Your task to perform on an android device: move an email to a new category in the gmail app Image 0: 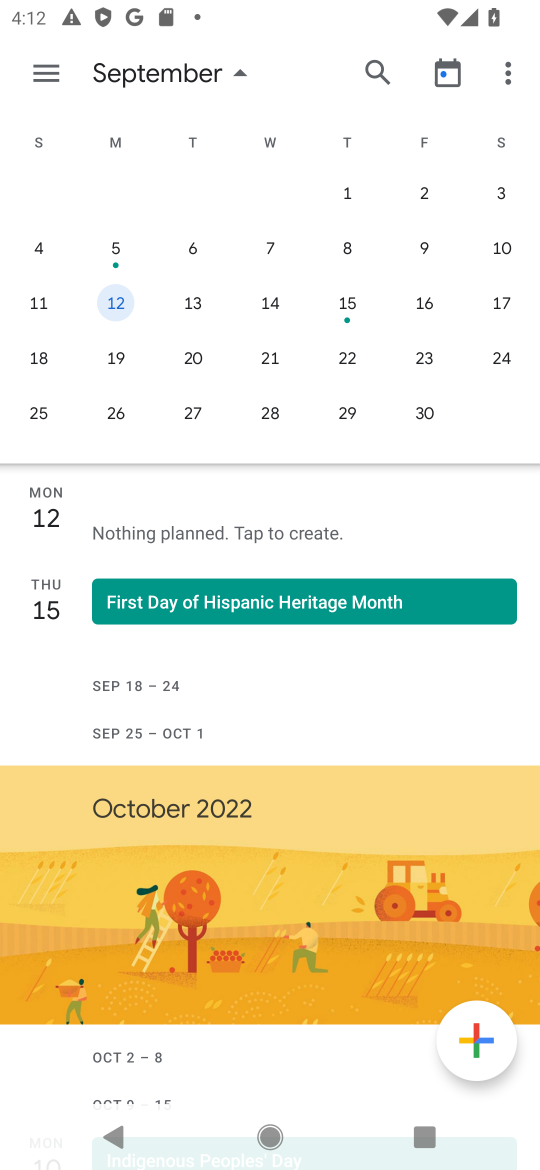
Step 0: press home button
Your task to perform on an android device: move an email to a new category in the gmail app Image 1: 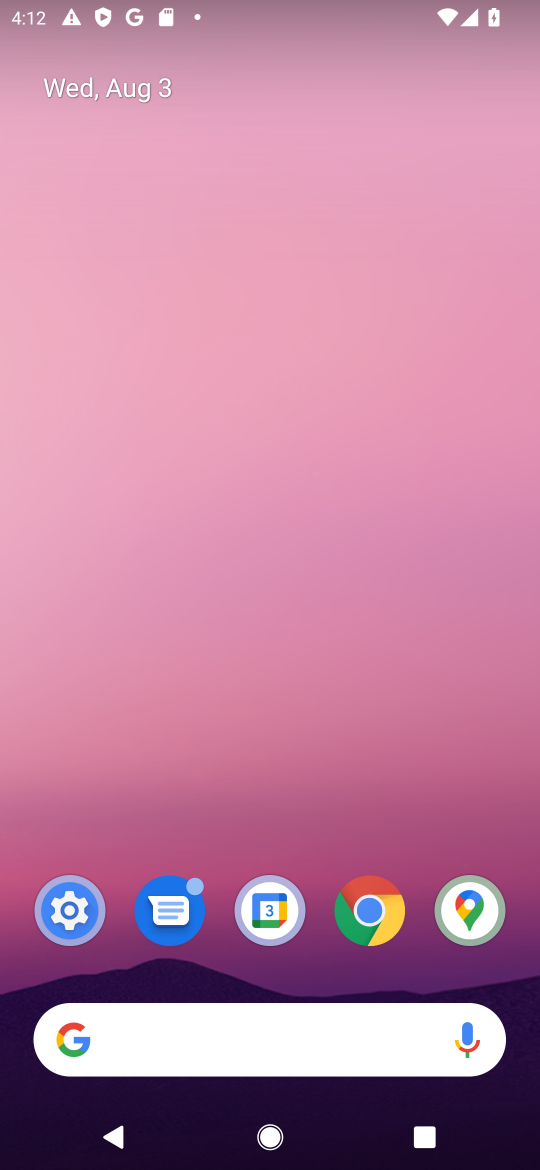
Step 1: drag from (53, 1123) to (504, 200)
Your task to perform on an android device: move an email to a new category in the gmail app Image 2: 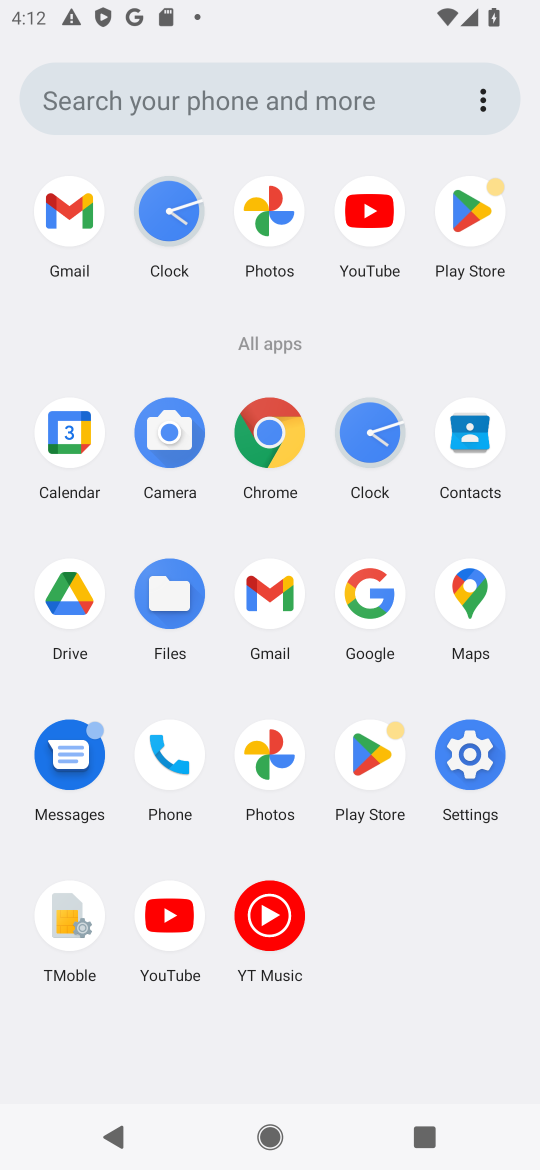
Step 2: click (294, 582)
Your task to perform on an android device: move an email to a new category in the gmail app Image 3: 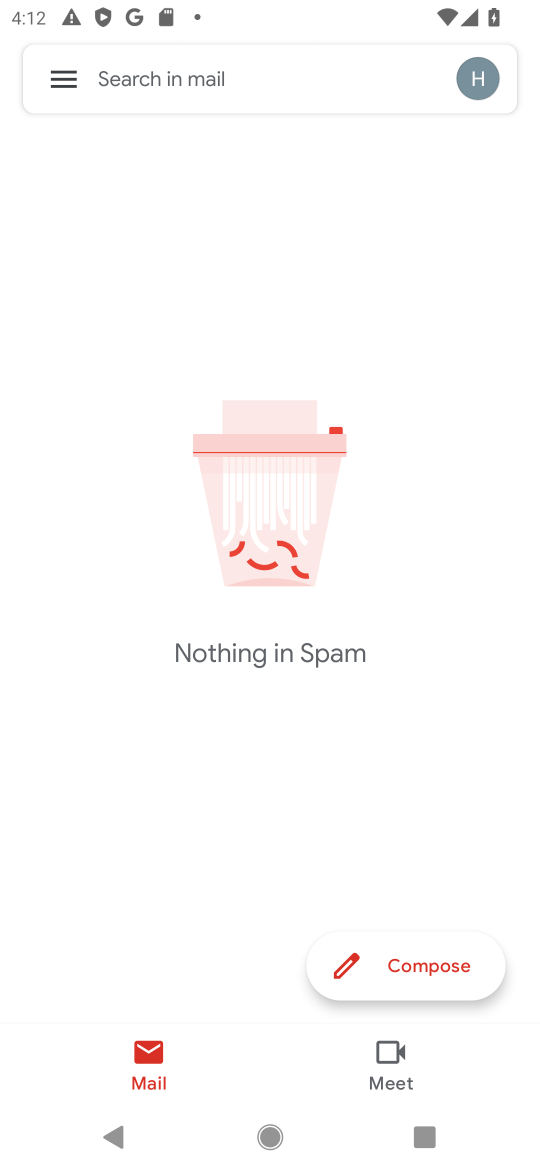
Step 3: click (62, 74)
Your task to perform on an android device: move an email to a new category in the gmail app Image 4: 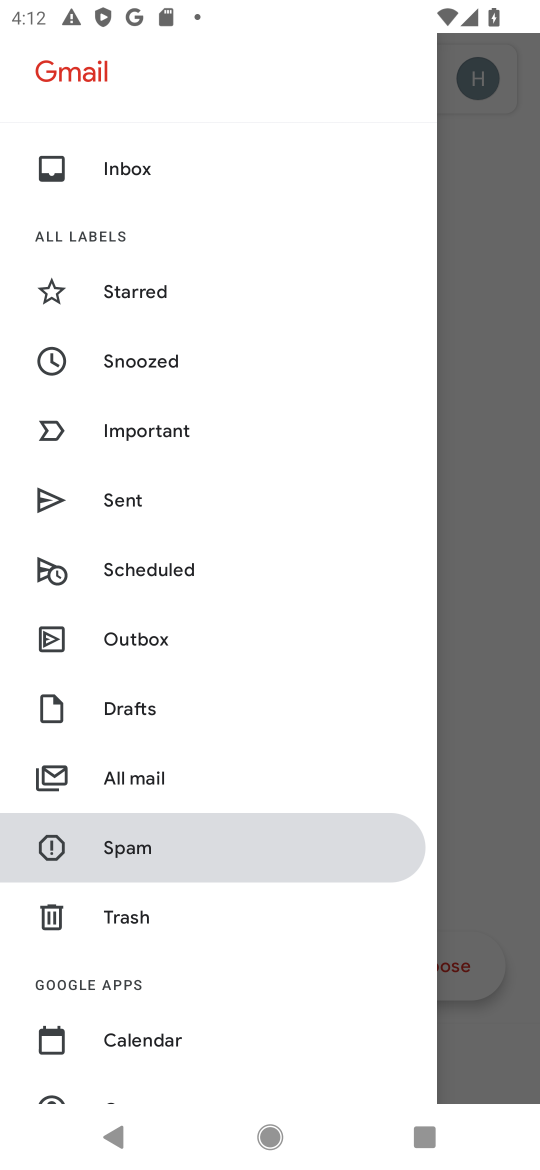
Step 4: click (124, 163)
Your task to perform on an android device: move an email to a new category in the gmail app Image 5: 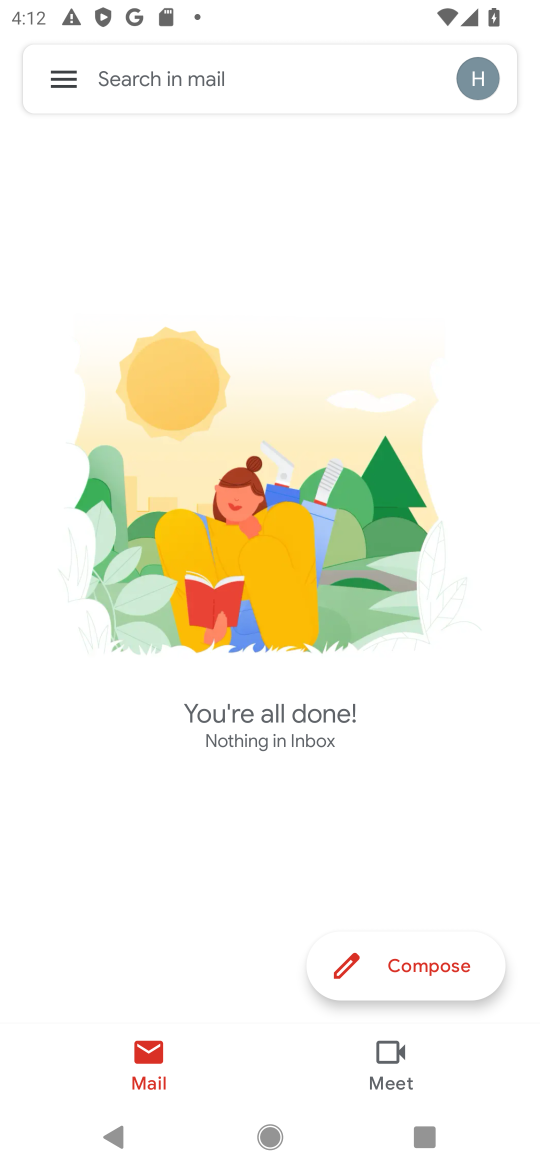
Step 5: click (81, 86)
Your task to perform on an android device: move an email to a new category in the gmail app Image 6: 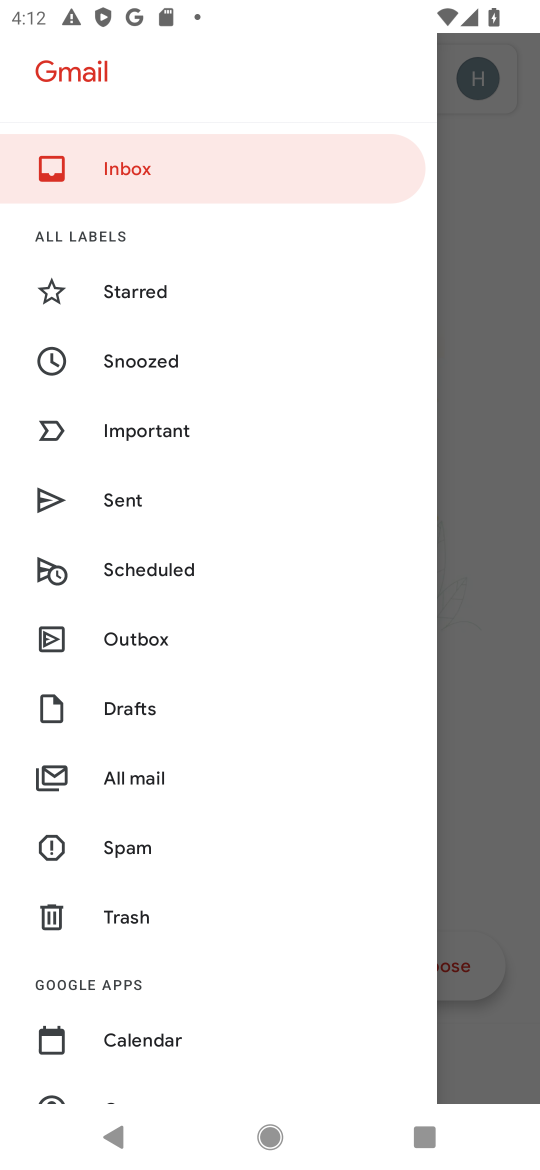
Step 6: click (159, 171)
Your task to perform on an android device: move an email to a new category in the gmail app Image 7: 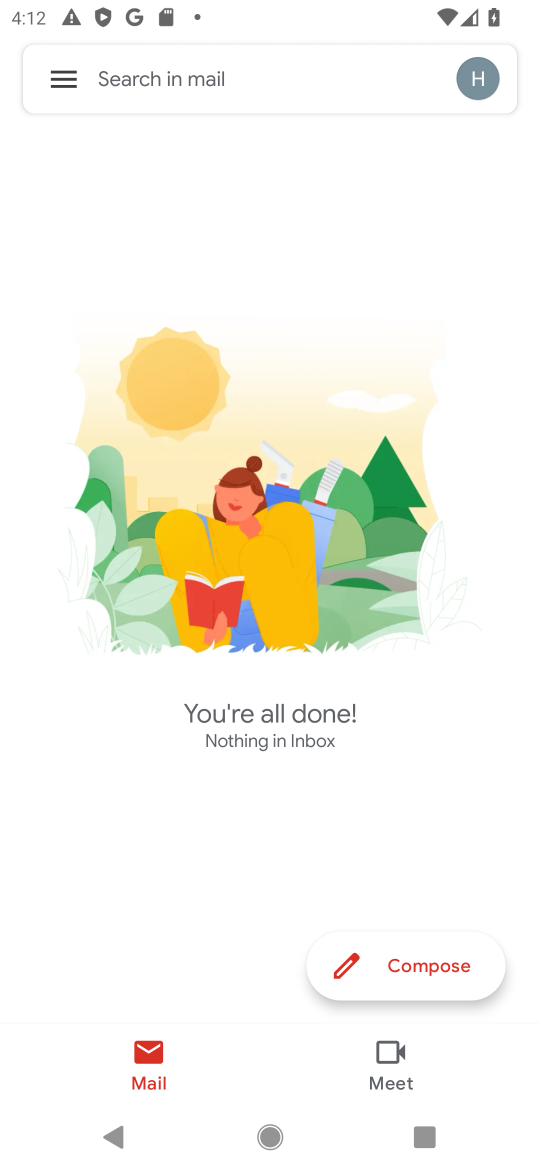
Step 7: task complete